Your task to perform on an android device: open app "Move to iOS" Image 0: 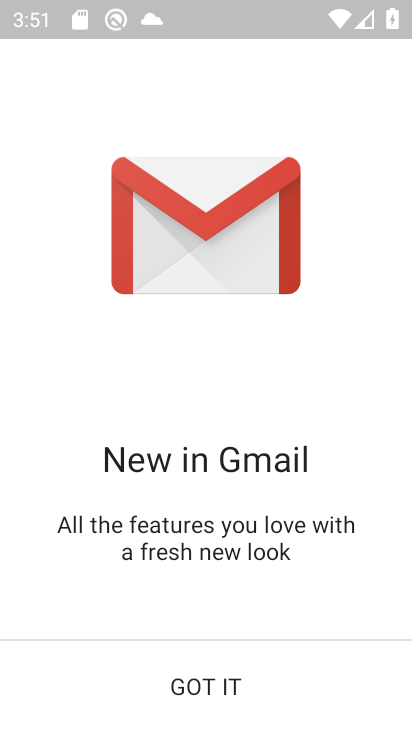
Step 0: press home button
Your task to perform on an android device: open app "Move to iOS" Image 1: 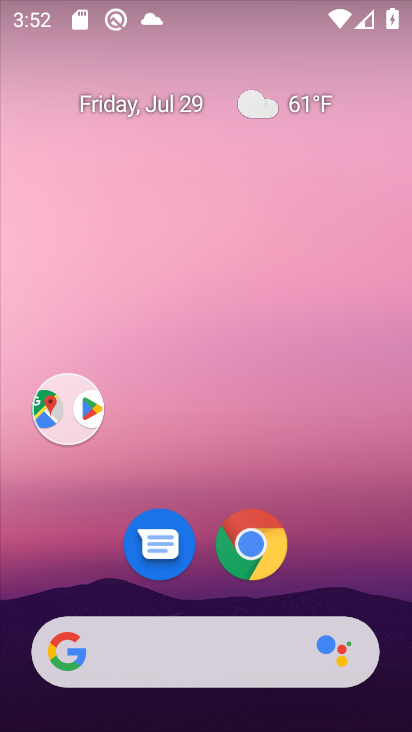
Step 1: task complete